Your task to perform on an android device: Go to network settings Image 0: 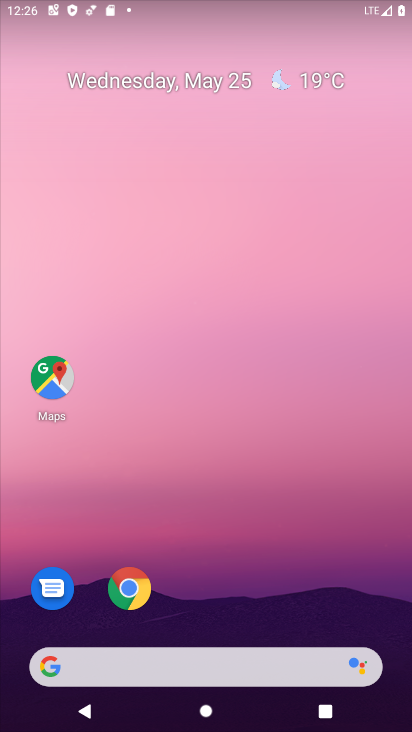
Step 0: drag from (197, 650) to (247, 125)
Your task to perform on an android device: Go to network settings Image 1: 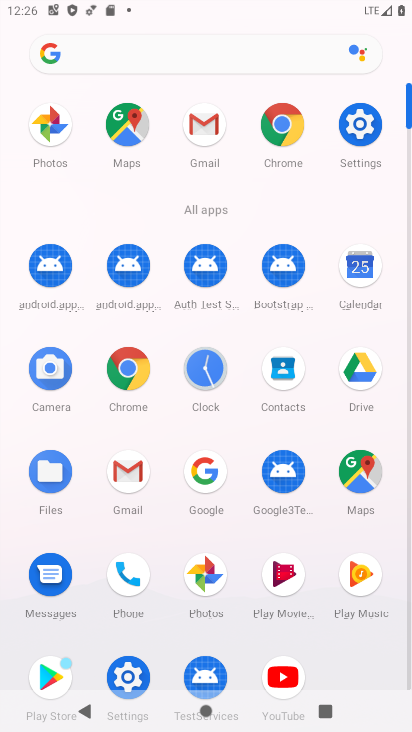
Step 1: click (126, 667)
Your task to perform on an android device: Go to network settings Image 2: 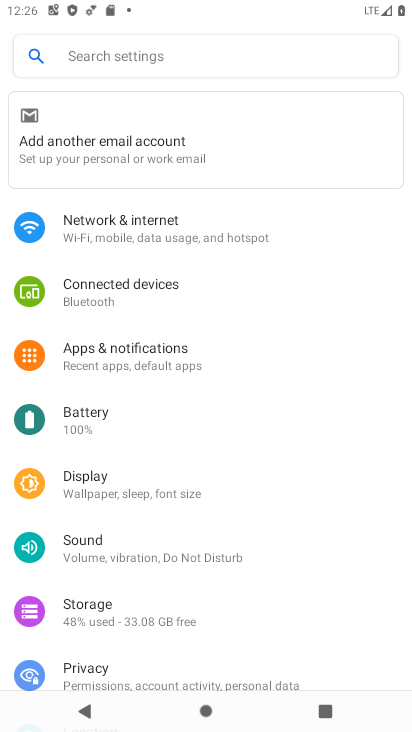
Step 2: click (212, 235)
Your task to perform on an android device: Go to network settings Image 3: 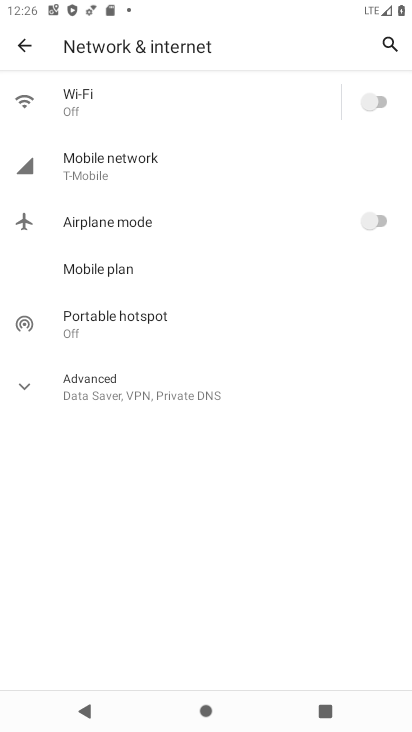
Step 3: click (191, 175)
Your task to perform on an android device: Go to network settings Image 4: 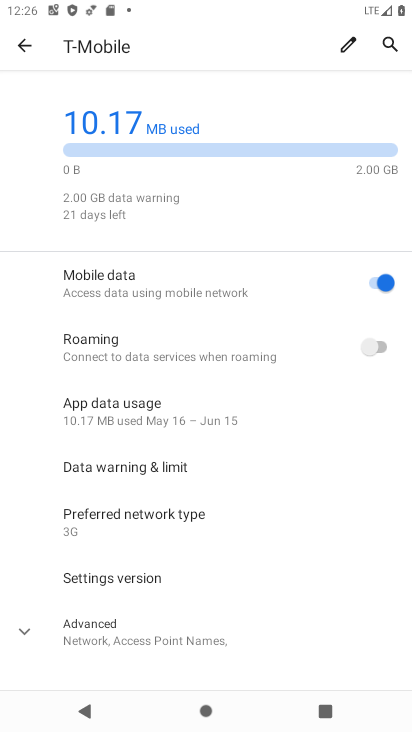
Step 4: task complete